Your task to perform on an android device: see sites visited before in the chrome app Image 0: 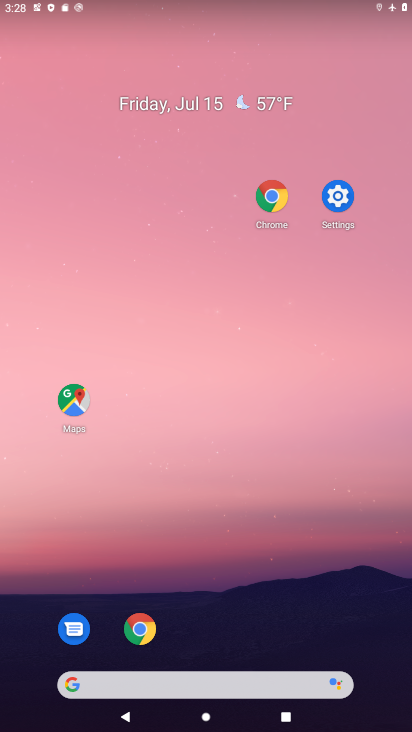
Step 0: drag from (230, 658) to (208, 260)
Your task to perform on an android device: see sites visited before in the chrome app Image 1: 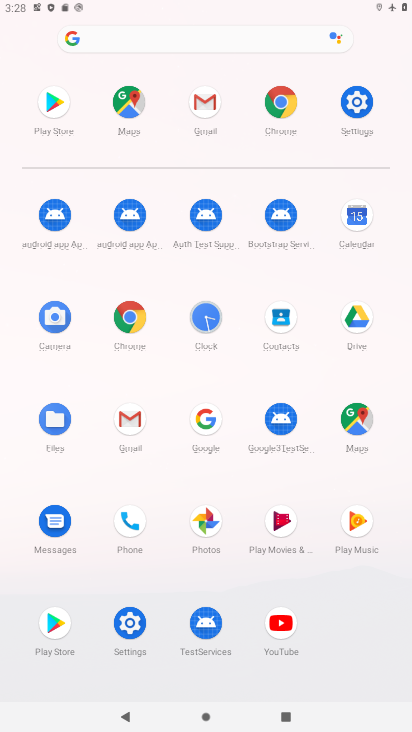
Step 1: click (275, 102)
Your task to perform on an android device: see sites visited before in the chrome app Image 2: 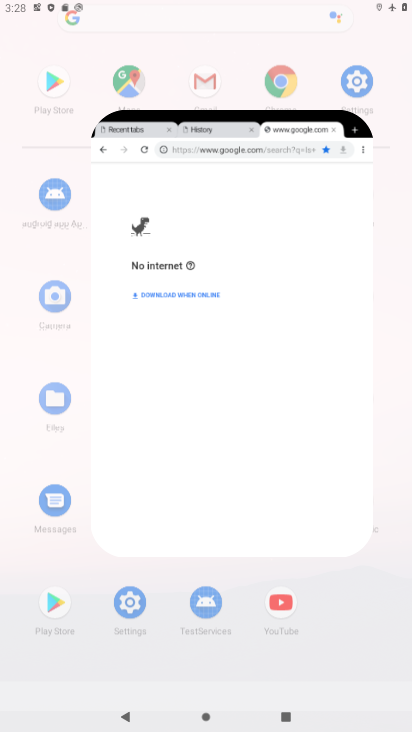
Step 2: click (270, 101)
Your task to perform on an android device: see sites visited before in the chrome app Image 3: 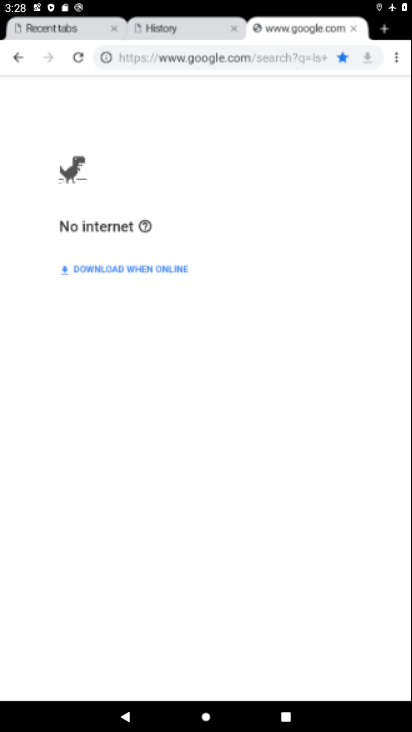
Step 3: click (283, 113)
Your task to perform on an android device: see sites visited before in the chrome app Image 4: 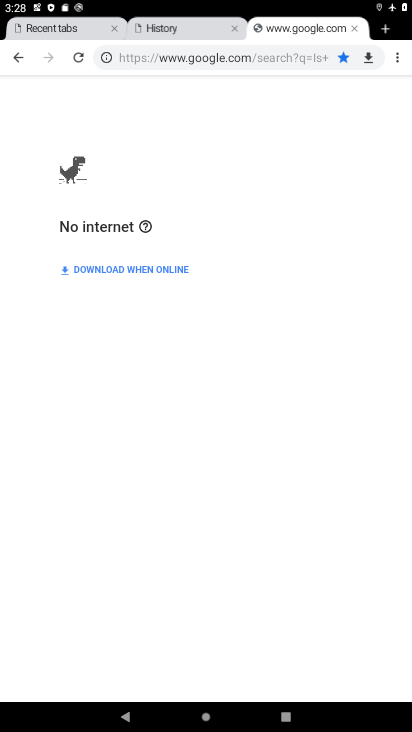
Step 4: drag from (398, 61) to (277, 141)
Your task to perform on an android device: see sites visited before in the chrome app Image 5: 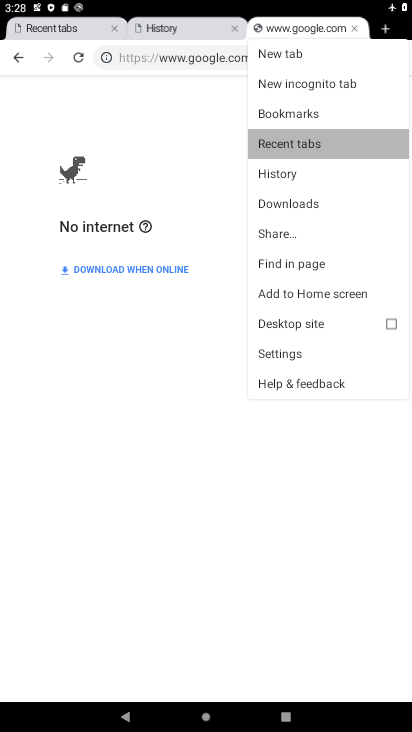
Step 5: click (278, 144)
Your task to perform on an android device: see sites visited before in the chrome app Image 6: 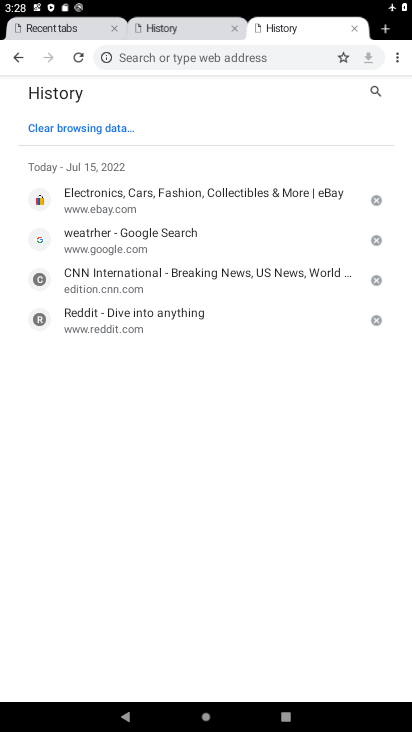
Step 6: task complete